Your task to perform on an android device: find snoozed emails in the gmail app Image 0: 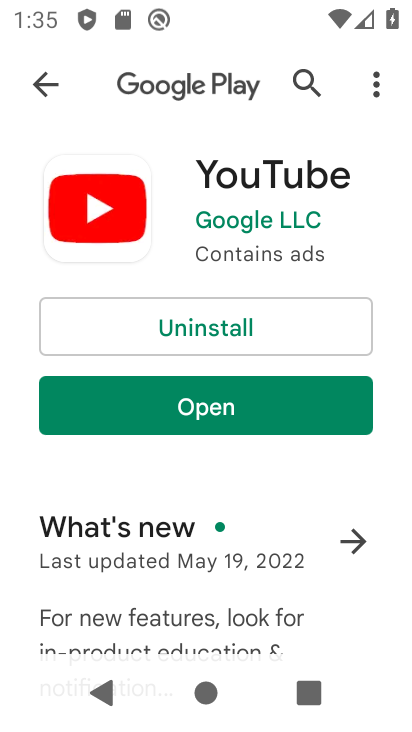
Step 0: press home button
Your task to perform on an android device: find snoozed emails in the gmail app Image 1: 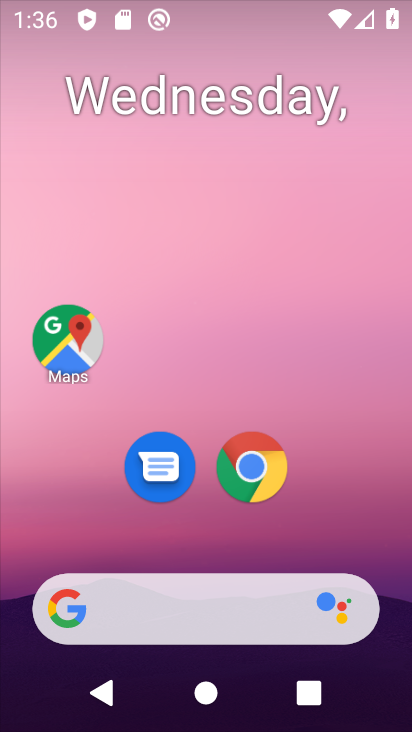
Step 1: drag from (329, 496) to (245, 21)
Your task to perform on an android device: find snoozed emails in the gmail app Image 2: 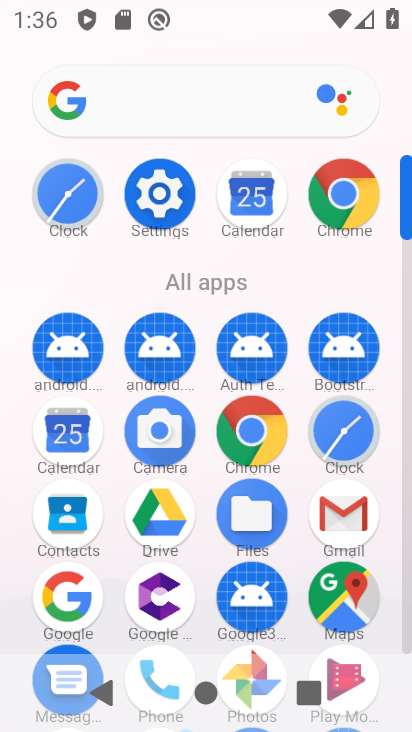
Step 2: click (343, 532)
Your task to perform on an android device: find snoozed emails in the gmail app Image 3: 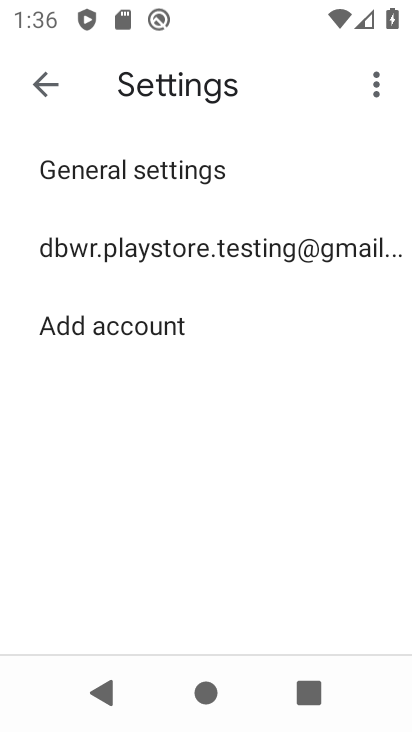
Step 3: click (32, 82)
Your task to perform on an android device: find snoozed emails in the gmail app Image 4: 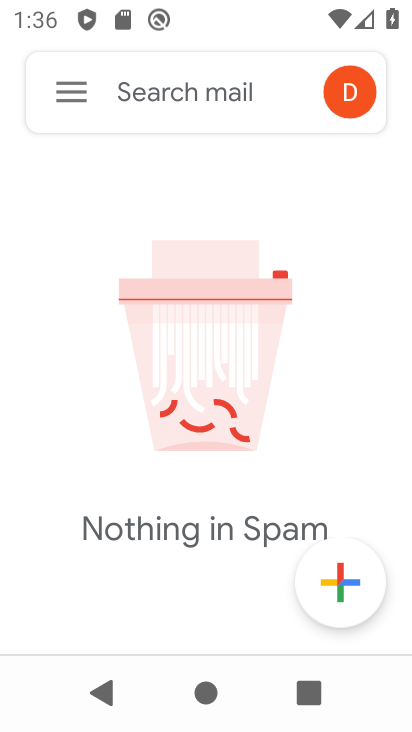
Step 4: click (65, 75)
Your task to perform on an android device: find snoozed emails in the gmail app Image 5: 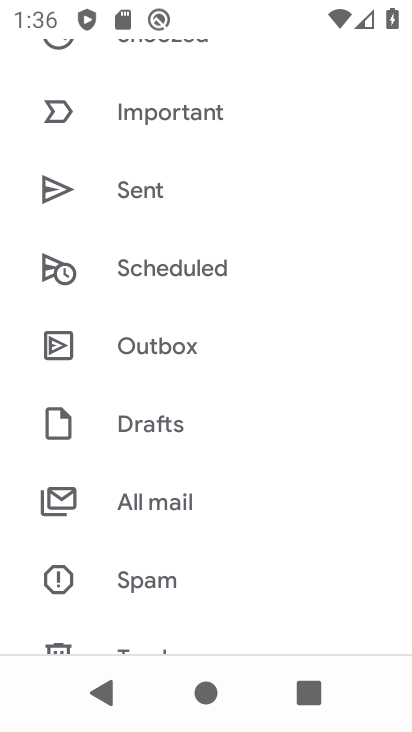
Step 5: drag from (212, 176) to (221, 606)
Your task to perform on an android device: find snoozed emails in the gmail app Image 6: 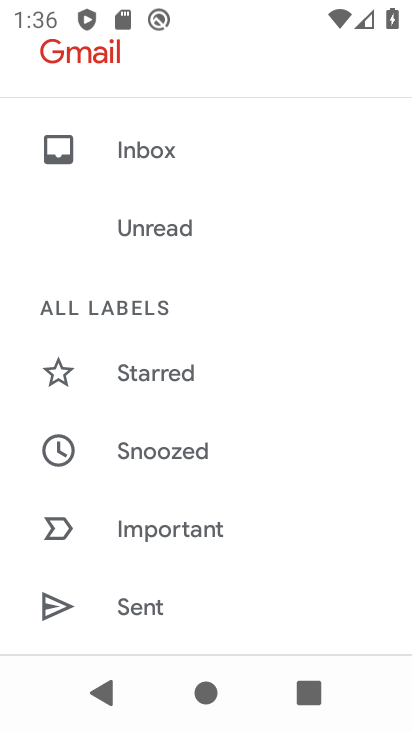
Step 6: click (199, 455)
Your task to perform on an android device: find snoozed emails in the gmail app Image 7: 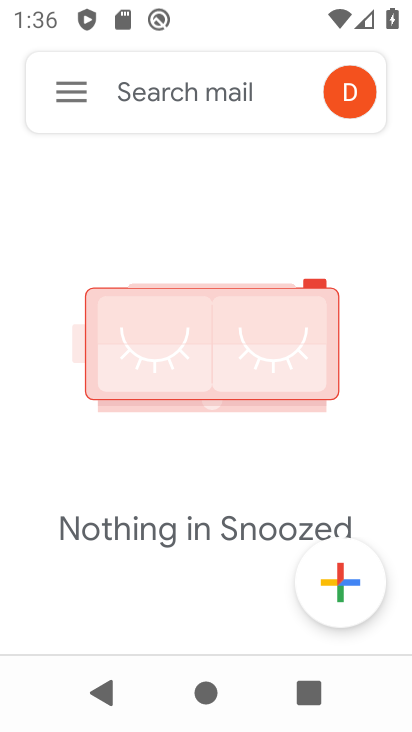
Step 7: task complete